Your task to perform on an android device: turn pop-ups on in chrome Image 0: 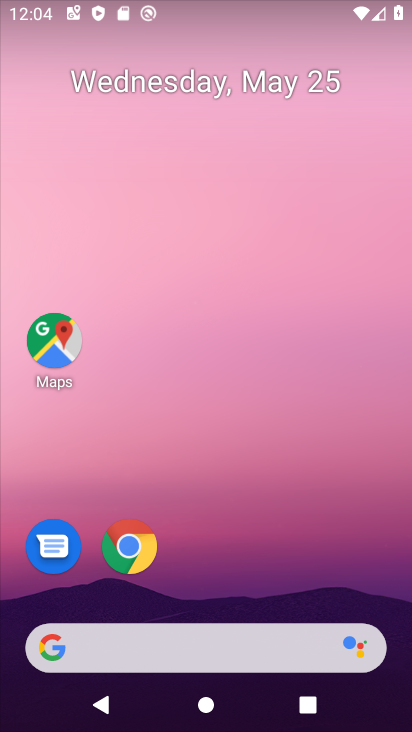
Step 0: drag from (226, 600) to (212, 218)
Your task to perform on an android device: turn pop-ups on in chrome Image 1: 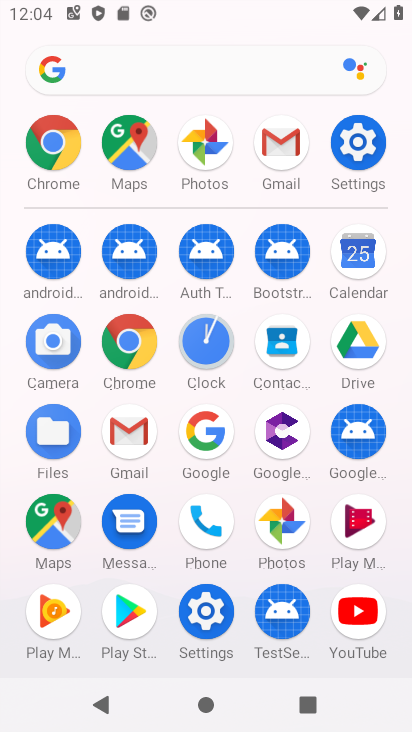
Step 1: click (126, 356)
Your task to perform on an android device: turn pop-ups on in chrome Image 2: 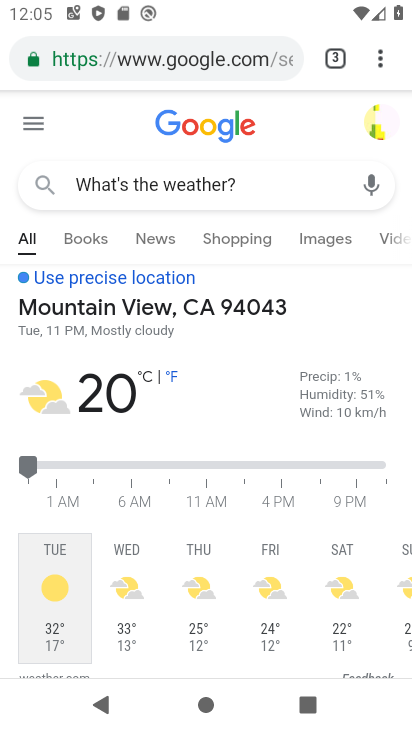
Step 2: click (375, 72)
Your task to perform on an android device: turn pop-ups on in chrome Image 3: 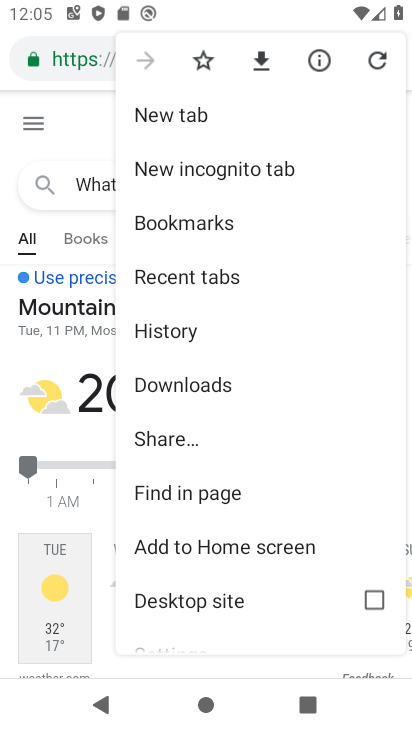
Step 3: drag from (270, 599) to (299, 175)
Your task to perform on an android device: turn pop-ups on in chrome Image 4: 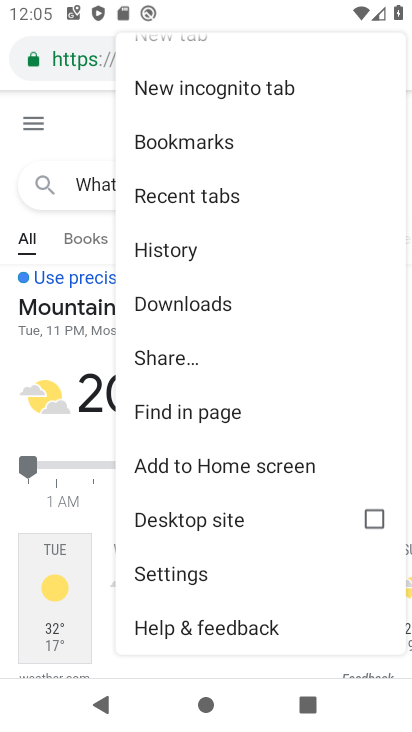
Step 4: click (227, 568)
Your task to perform on an android device: turn pop-ups on in chrome Image 5: 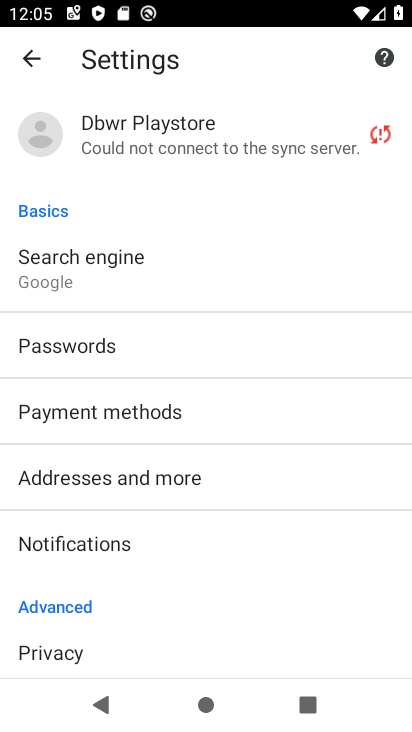
Step 5: drag from (234, 642) to (182, 254)
Your task to perform on an android device: turn pop-ups on in chrome Image 6: 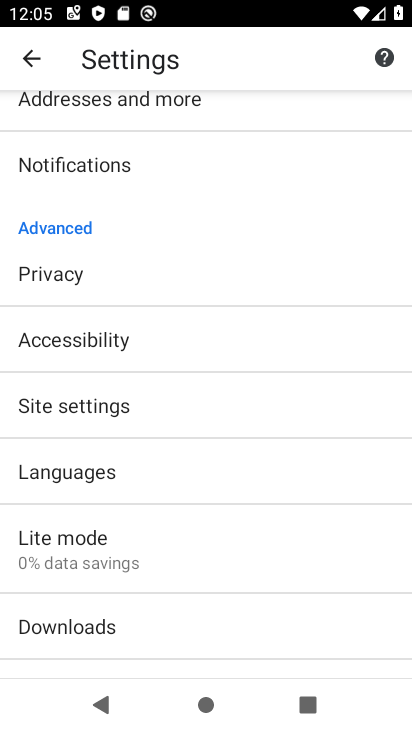
Step 6: click (136, 426)
Your task to perform on an android device: turn pop-ups on in chrome Image 7: 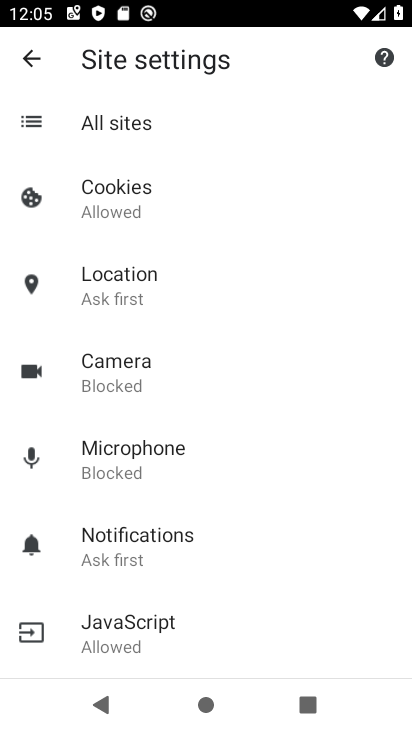
Step 7: drag from (225, 566) to (186, 166)
Your task to perform on an android device: turn pop-ups on in chrome Image 8: 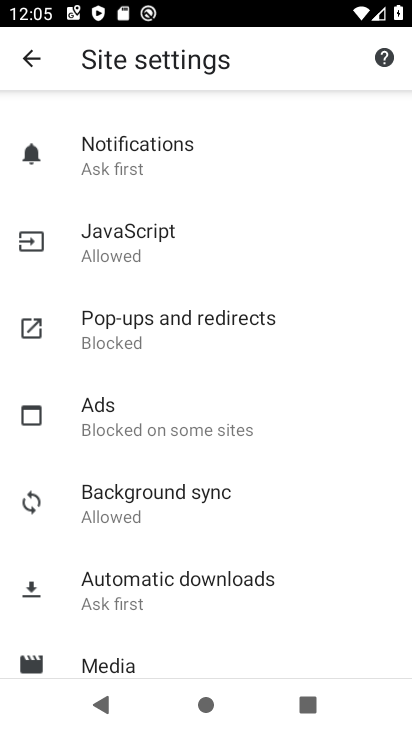
Step 8: click (167, 345)
Your task to perform on an android device: turn pop-ups on in chrome Image 9: 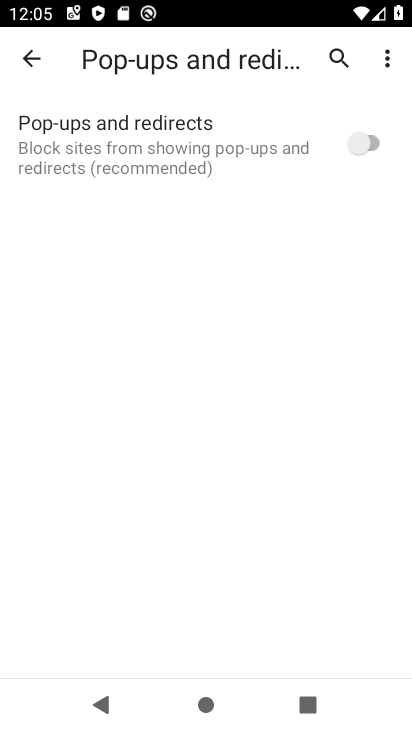
Step 9: click (369, 155)
Your task to perform on an android device: turn pop-ups on in chrome Image 10: 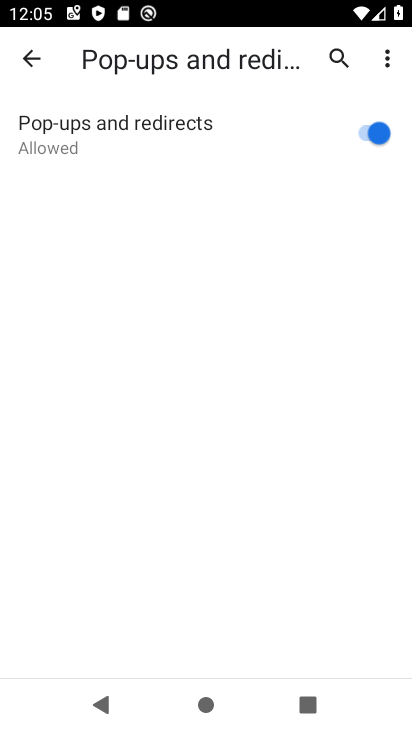
Step 10: task complete